Your task to perform on an android device: allow cookies in the chrome app Image 0: 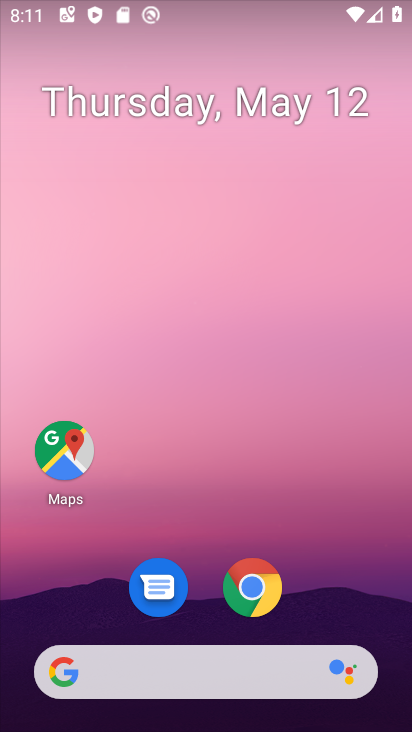
Step 0: drag from (316, 576) to (296, 269)
Your task to perform on an android device: allow cookies in the chrome app Image 1: 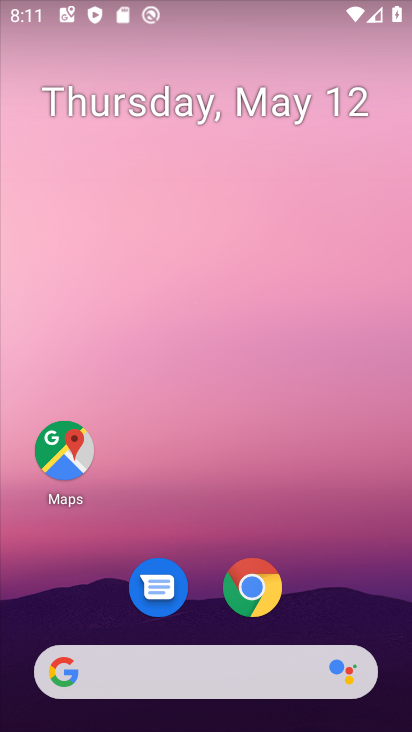
Step 1: drag from (335, 495) to (335, 307)
Your task to perform on an android device: allow cookies in the chrome app Image 2: 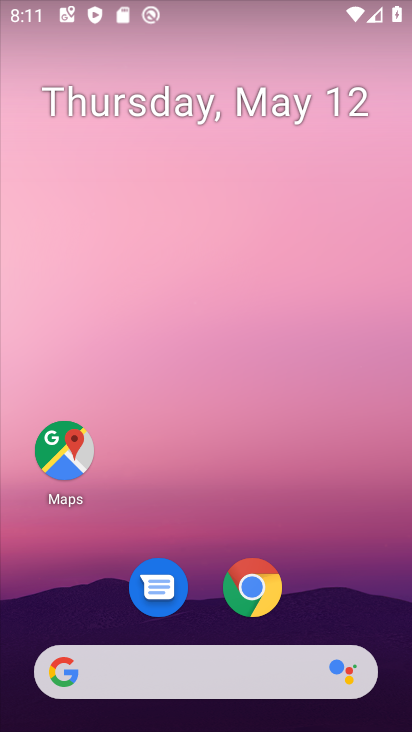
Step 2: drag from (279, 689) to (298, 292)
Your task to perform on an android device: allow cookies in the chrome app Image 3: 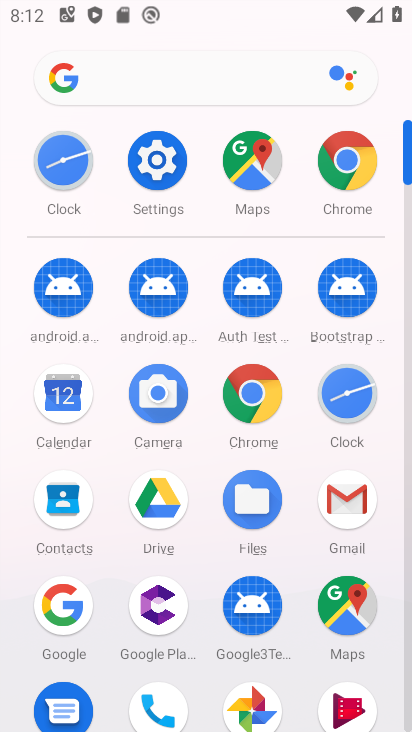
Step 3: click (258, 395)
Your task to perform on an android device: allow cookies in the chrome app Image 4: 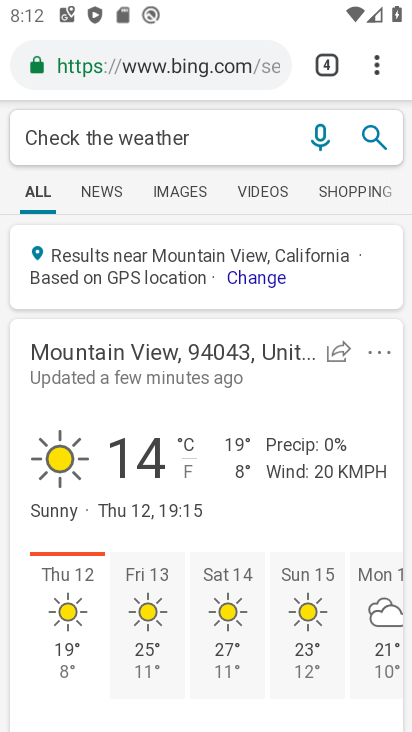
Step 4: click (362, 68)
Your task to perform on an android device: allow cookies in the chrome app Image 5: 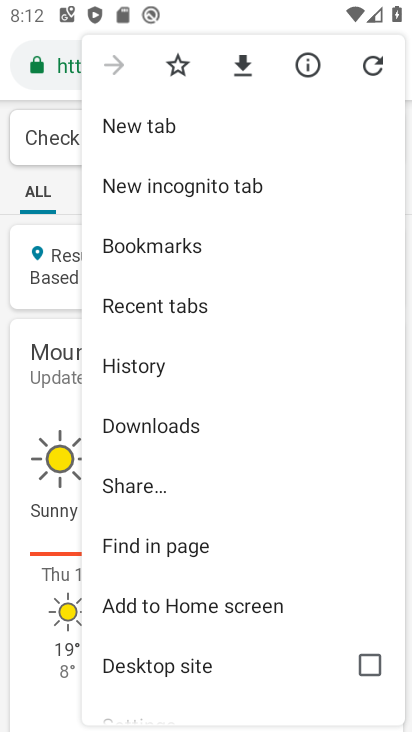
Step 5: drag from (212, 583) to (237, 271)
Your task to perform on an android device: allow cookies in the chrome app Image 6: 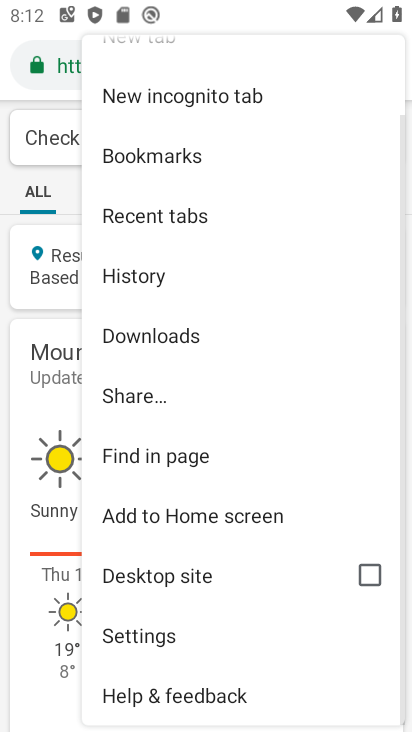
Step 6: click (169, 636)
Your task to perform on an android device: allow cookies in the chrome app Image 7: 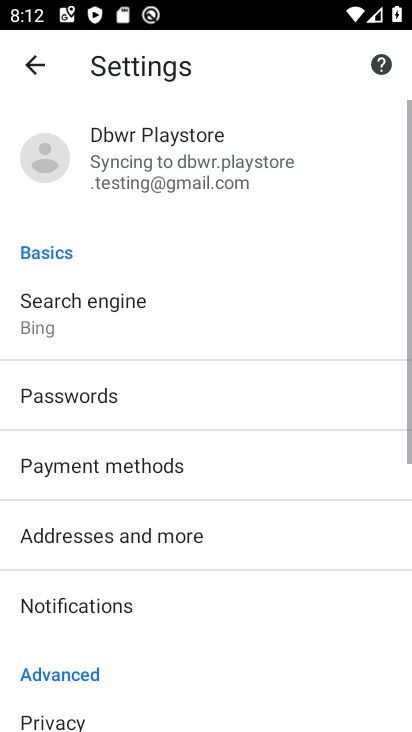
Step 7: drag from (212, 617) to (244, 251)
Your task to perform on an android device: allow cookies in the chrome app Image 8: 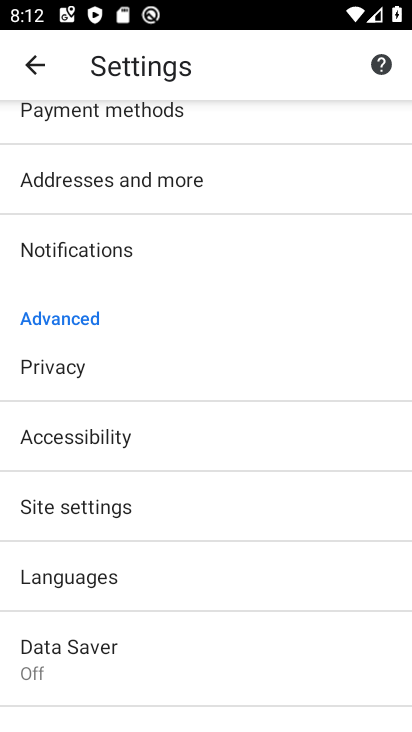
Step 8: drag from (135, 606) to (149, 476)
Your task to perform on an android device: allow cookies in the chrome app Image 9: 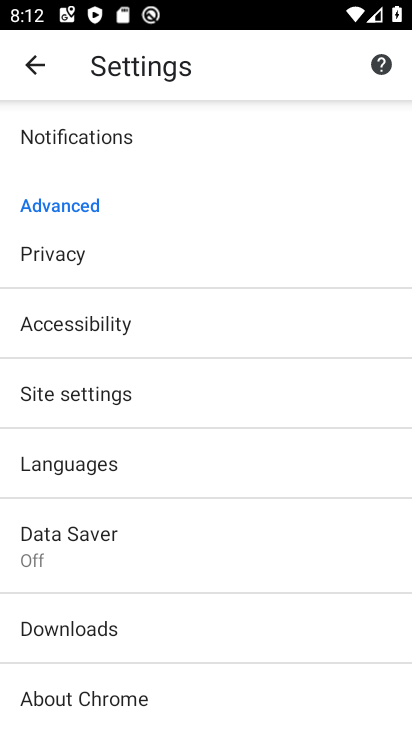
Step 9: click (114, 386)
Your task to perform on an android device: allow cookies in the chrome app Image 10: 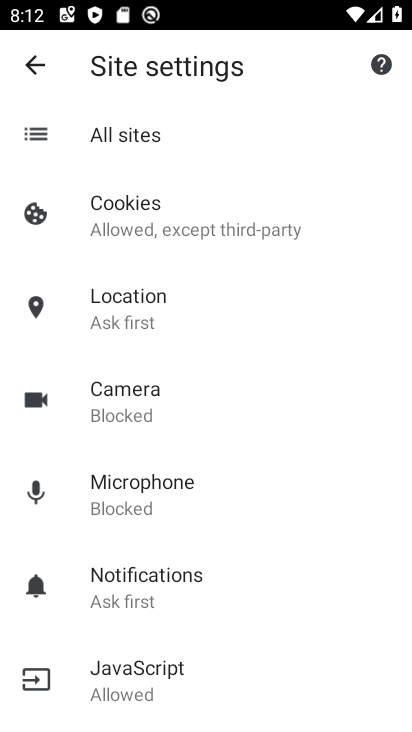
Step 10: click (175, 236)
Your task to perform on an android device: allow cookies in the chrome app Image 11: 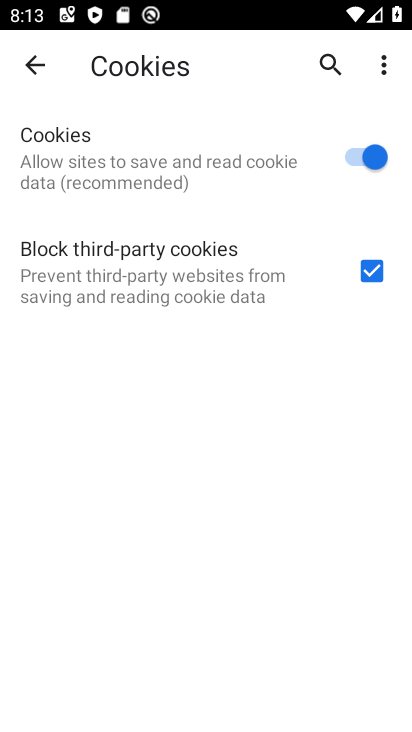
Step 11: task complete